Your task to perform on an android device: change your default location settings in chrome Image 0: 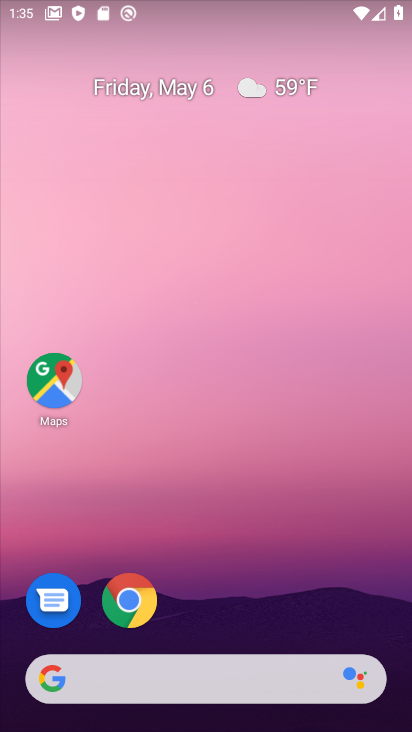
Step 0: drag from (220, 584) to (290, 92)
Your task to perform on an android device: change your default location settings in chrome Image 1: 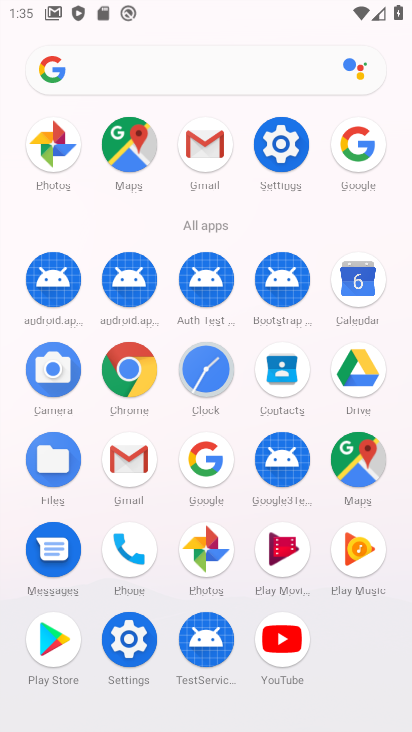
Step 1: click (124, 366)
Your task to perform on an android device: change your default location settings in chrome Image 2: 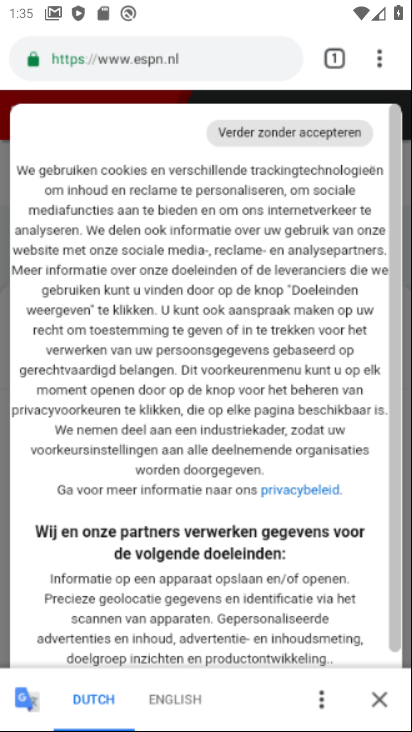
Step 2: click (373, 53)
Your task to perform on an android device: change your default location settings in chrome Image 3: 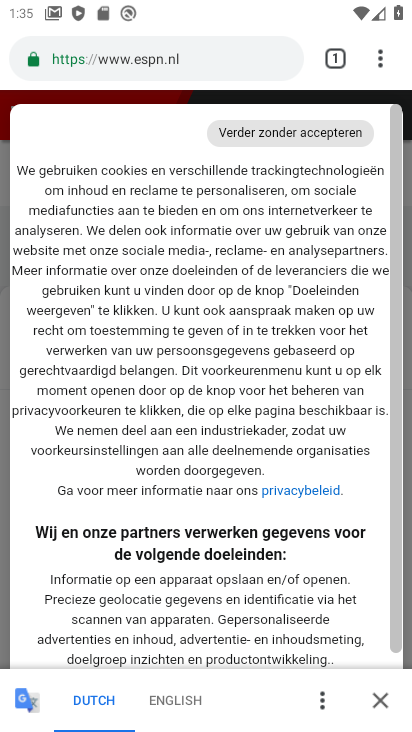
Step 3: click (374, 58)
Your task to perform on an android device: change your default location settings in chrome Image 4: 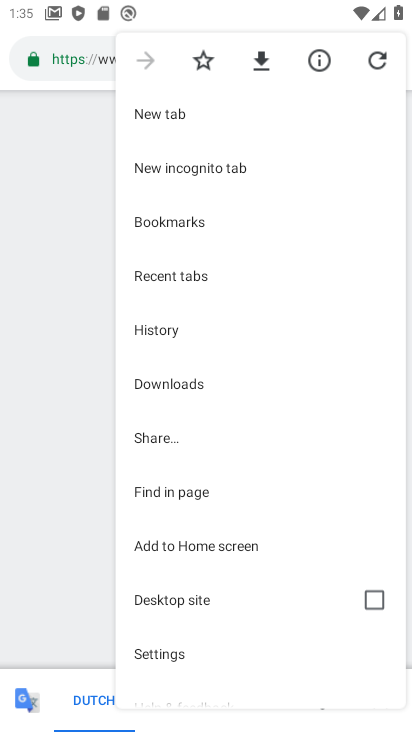
Step 4: click (178, 649)
Your task to perform on an android device: change your default location settings in chrome Image 5: 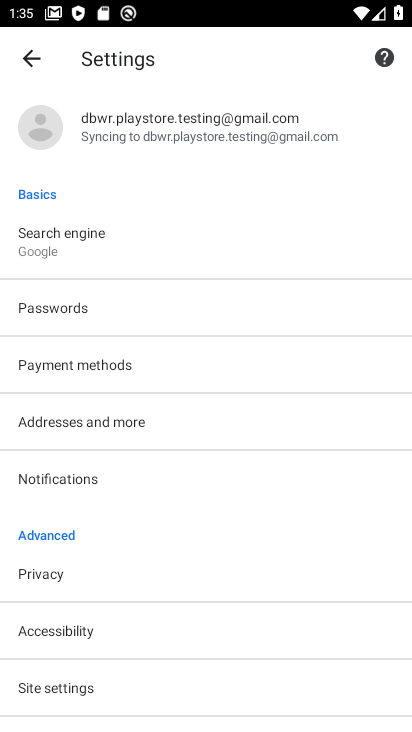
Step 5: click (96, 243)
Your task to perform on an android device: change your default location settings in chrome Image 6: 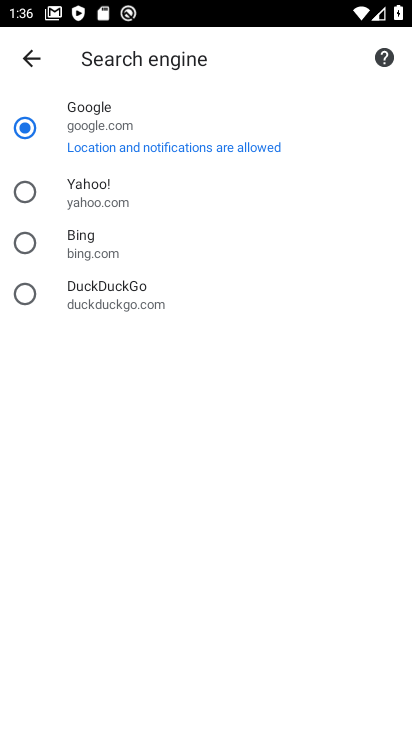
Step 6: task complete